Your task to perform on an android device: move a message to another label in the gmail app Image 0: 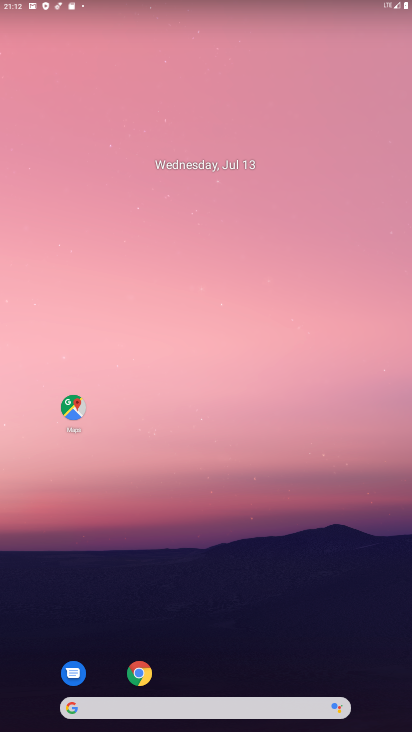
Step 0: drag from (194, 653) to (240, 100)
Your task to perform on an android device: move a message to another label in the gmail app Image 1: 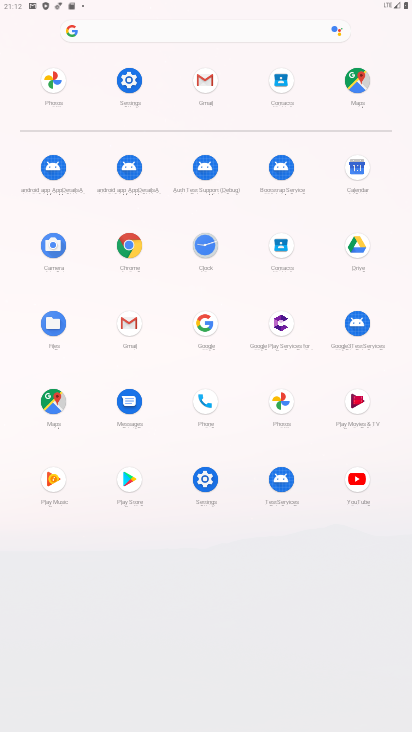
Step 1: click (128, 310)
Your task to perform on an android device: move a message to another label in the gmail app Image 2: 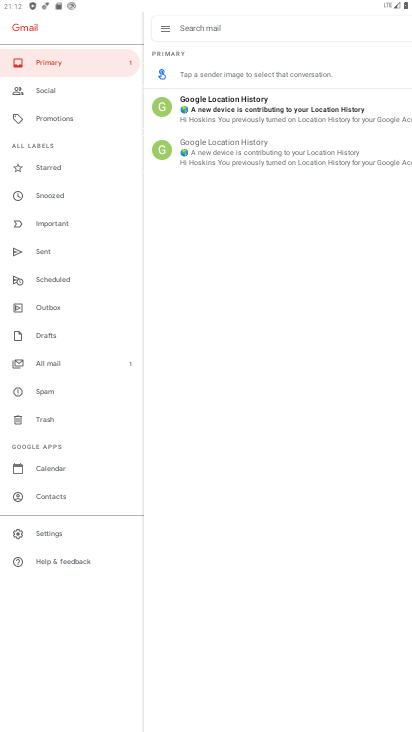
Step 2: click (201, 245)
Your task to perform on an android device: move a message to another label in the gmail app Image 3: 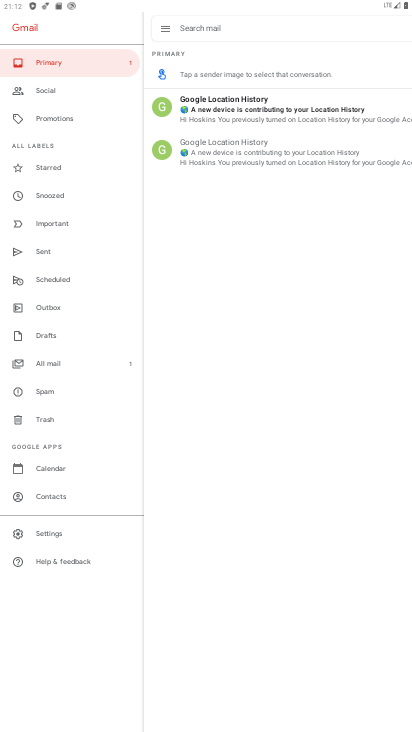
Step 3: click (276, 111)
Your task to perform on an android device: move a message to another label in the gmail app Image 4: 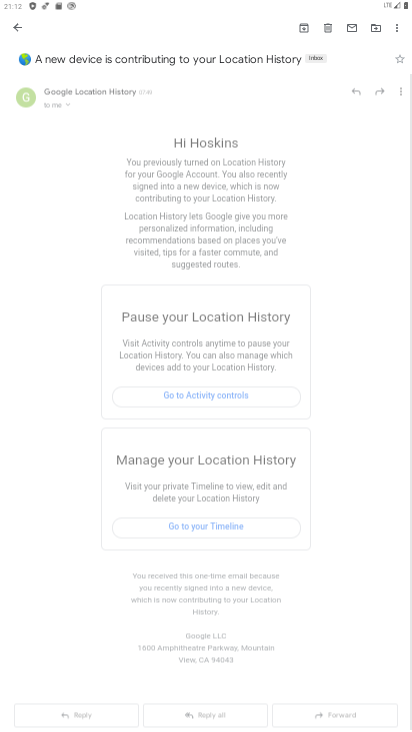
Step 4: click (398, 29)
Your task to perform on an android device: move a message to another label in the gmail app Image 5: 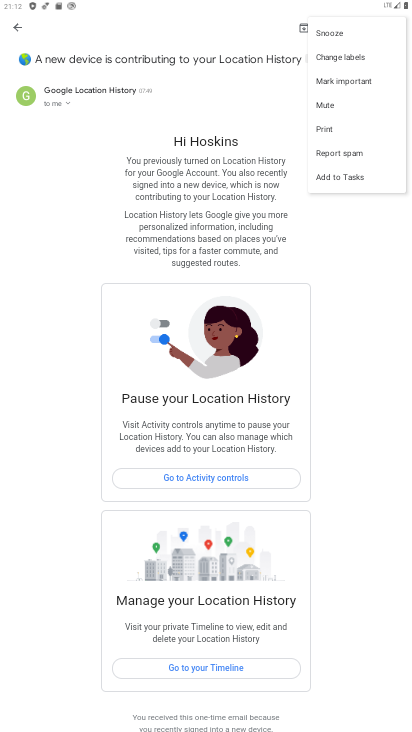
Step 5: click (355, 57)
Your task to perform on an android device: move a message to another label in the gmail app Image 6: 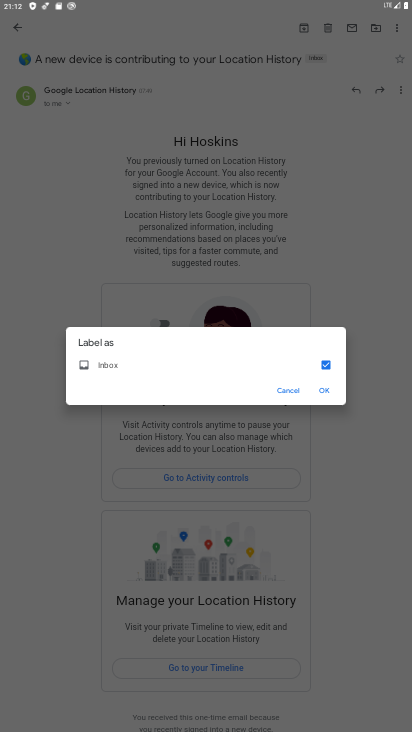
Step 6: click (283, 255)
Your task to perform on an android device: move a message to another label in the gmail app Image 7: 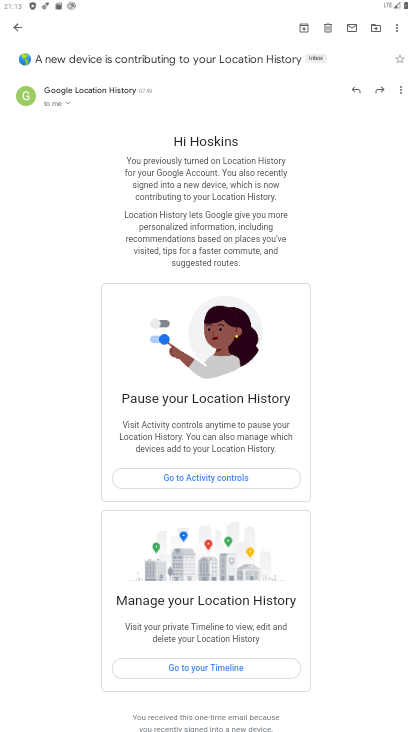
Step 7: click (403, 64)
Your task to perform on an android device: move a message to another label in the gmail app Image 8: 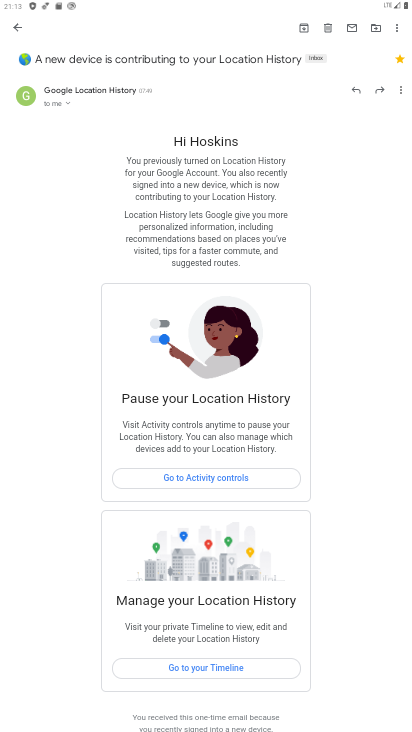
Step 8: task complete